Your task to perform on an android device: turn off airplane mode Image 0: 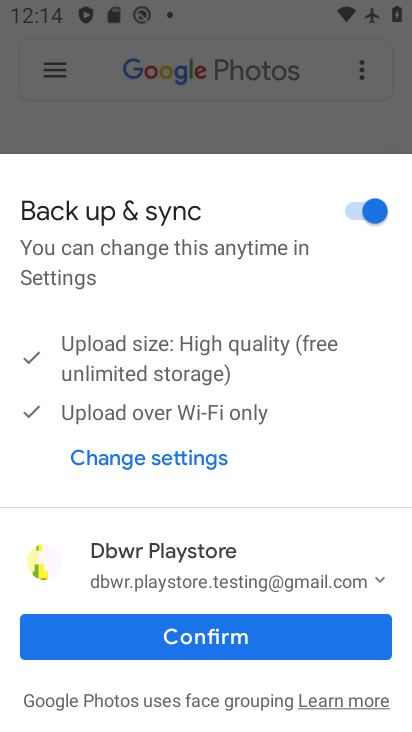
Step 0: click (290, 633)
Your task to perform on an android device: turn off airplane mode Image 1: 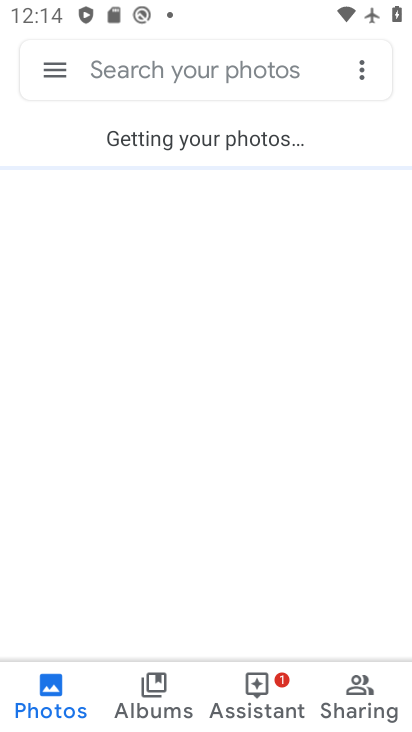
Step 1: press home button
Your task to perform on an android device: turn off airplane mode Image 2: 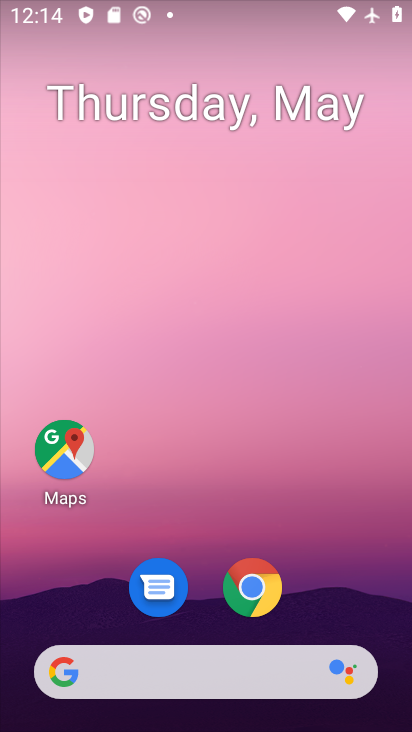
Step 2: drag from (263, 24) to (345, 569)
Your task to perform on an android device: turn off airplane mode Image 3: 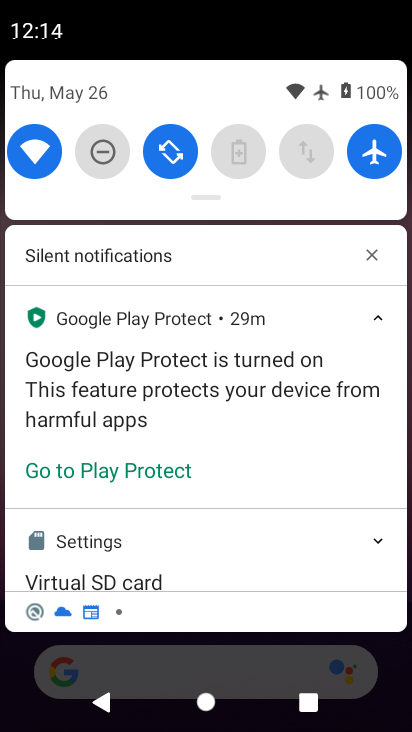
Step 3: drag from (269, 202) to (359, 655)
Your task to perform on an android device: turn off airplane mode Image 4: 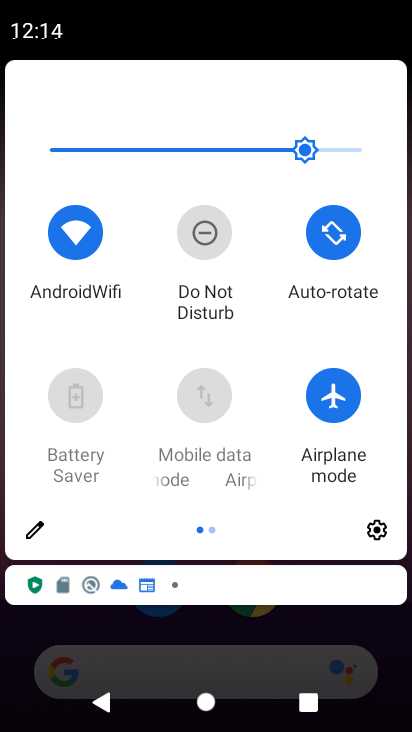
Step 4: click (327, 416)
Your task to perform on an android device: turn off airplane mode Image 5: 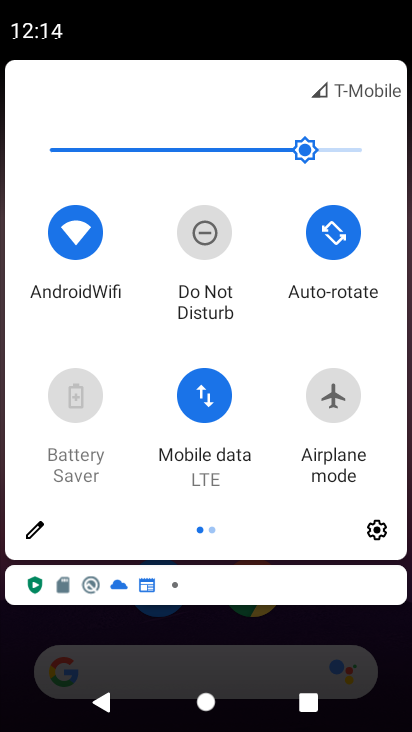
Step 5: task complete